Your task to perform on an android device: Do I have any events today? Image 0: 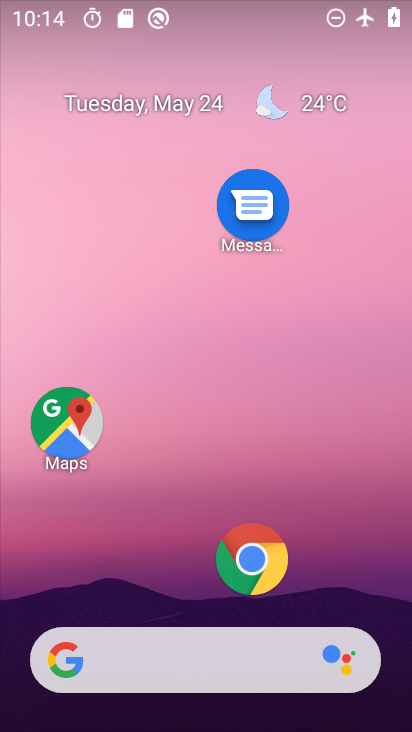
Step 0: drag from (197, 601) to (218, 183)
Your task to perform on an android device: Do I have any events today? Image 1: 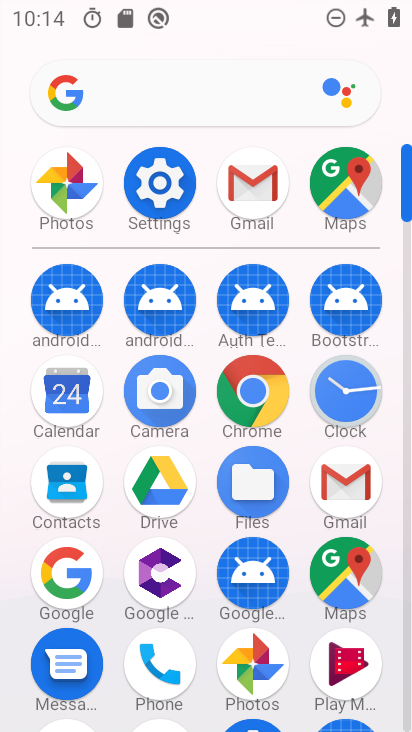
Step 1: click (49, 417)
Your task to perform on an android device: Do I have any events today? Image 2: 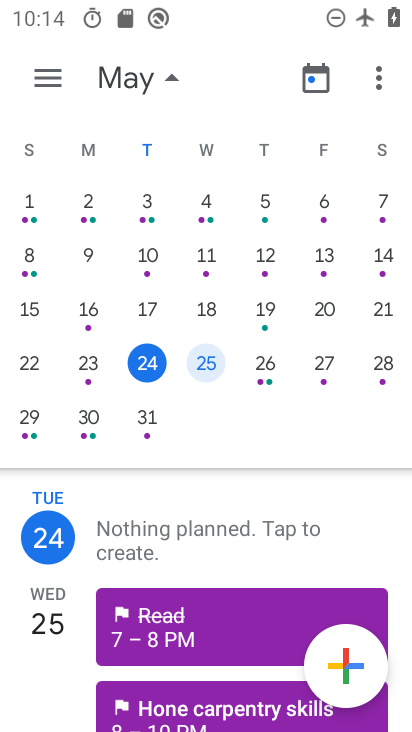
Step 2: click (160, 364)
Your task to perform on an android device: Do I have any events today? Image 3: 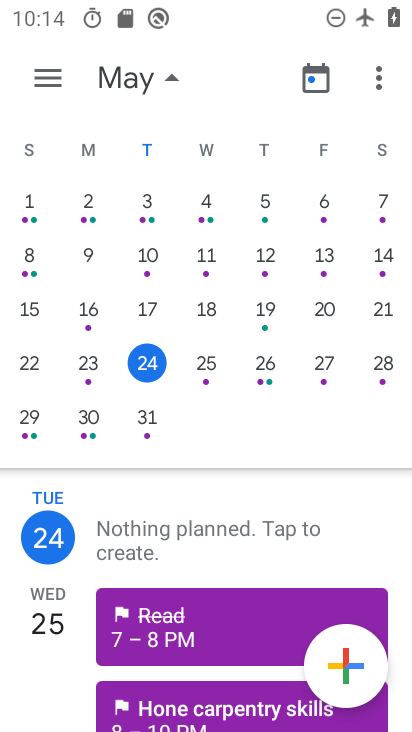
Step 3: task complete